Your task to perform on an android device: When is my next meeting? Image 0: 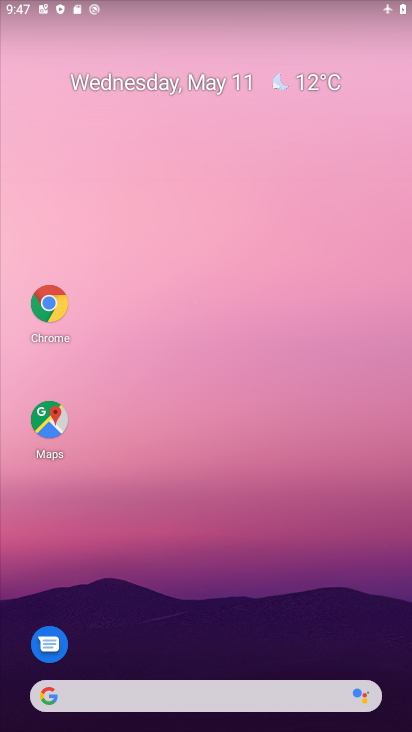
Step 0: drag from (129, 644) to (215, 316)
Your task to perform on an android device: When is my next meeting? Image 1: 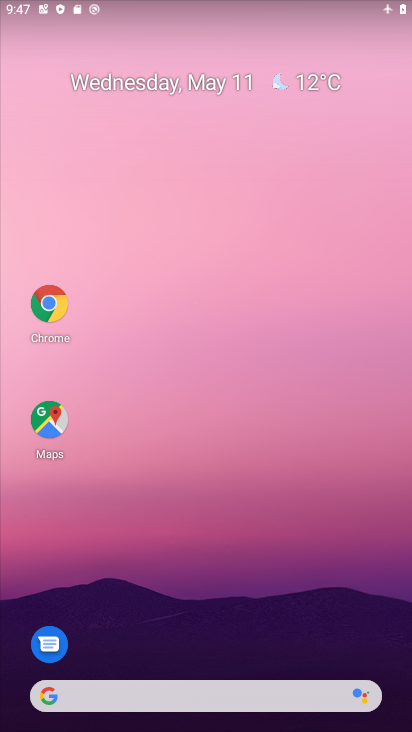
Step 1: drag from (147, 650) to (203, 131)
Your task to perform on an android device: When is my next meeting? Image 2: 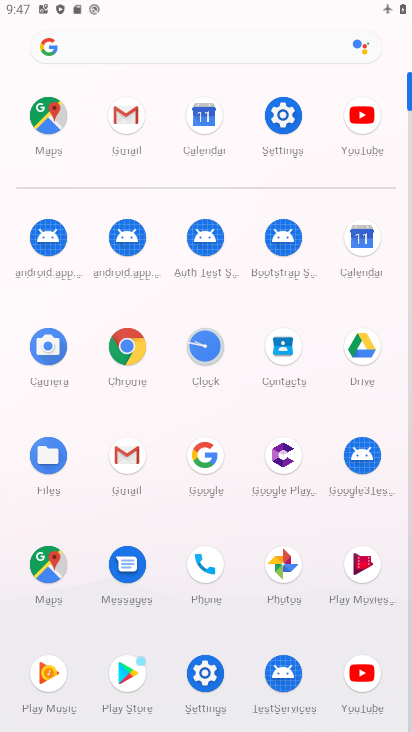
Step 2: click (205, 125)
Your task to perform on an android device: When is my next meeting? Image 3: 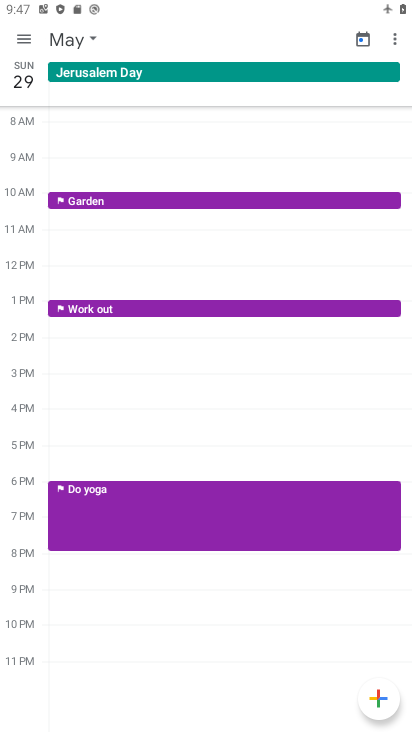
Step 3: click (70, 41)
Your task to perform on an android device: When is my next meeting? Image 4: 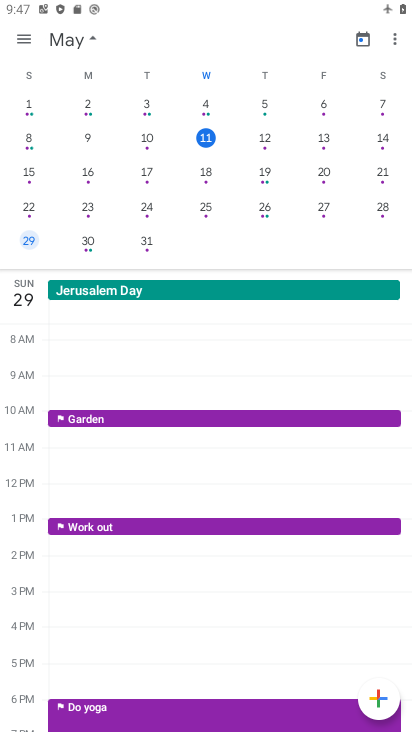
Step 4: click (205, 134)
Your task to perform on an android device: When is my next meeting? Image 5: 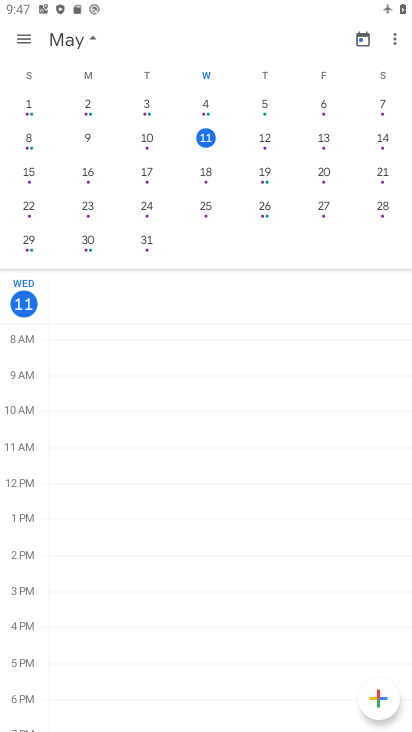
Step 5: click (24, 46)
Your task to perform on an android device: When is my next meeting? Image 6: 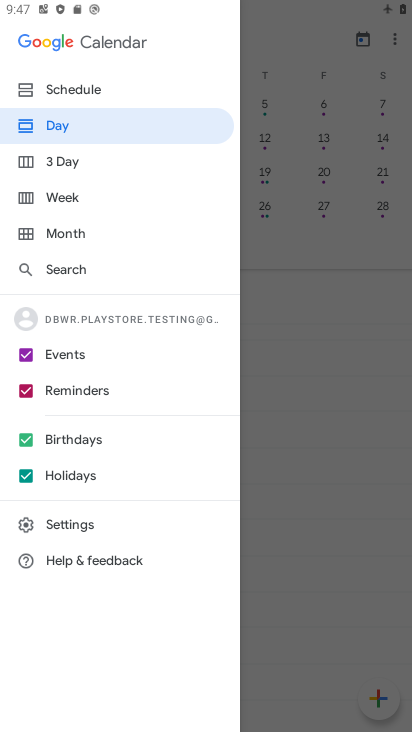
Step 6: click (37, 91)
Your task to perform on an android device: When is my next meeting? Image 7: 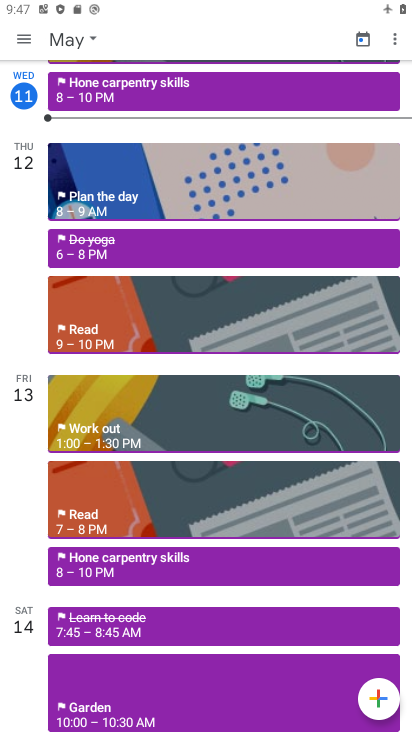
Step 7: click (105, 187)
Your task to perform on an android device: When is my next meeting? Image 8: 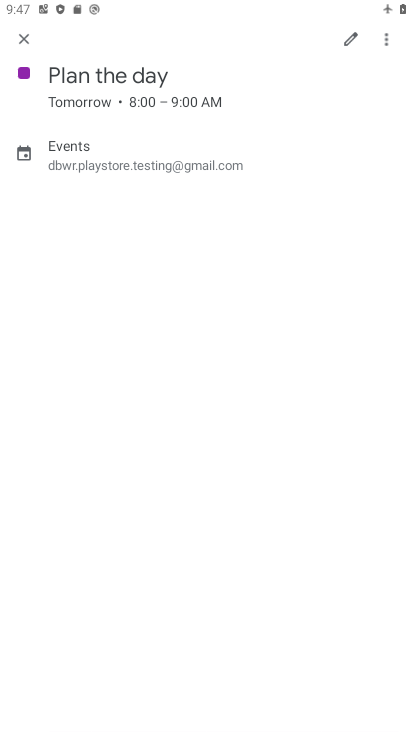
Step 8: task complete